Your task to perform on an android device: turn off picture-in-picture Image 0: 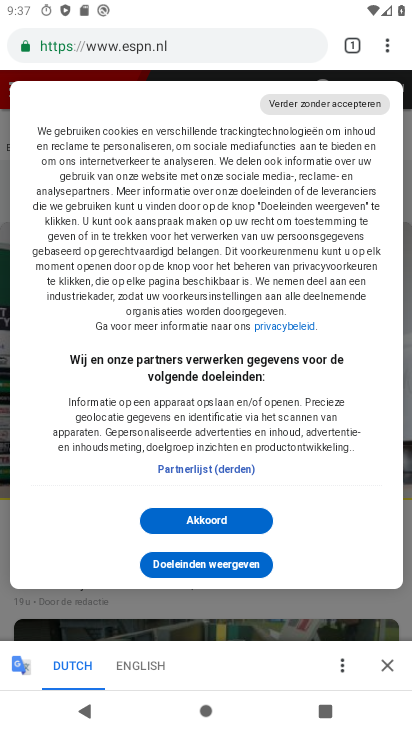
Step 0: press home button
Your task to perform on an android device: turn off picture-in-picture Image 1: 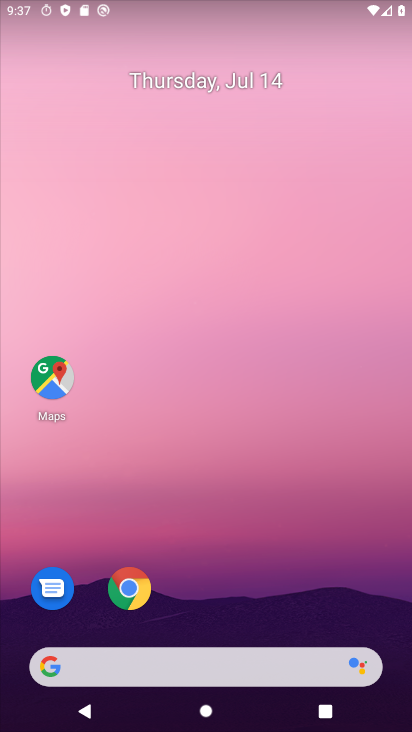
Step 1: click (128, 590)
Your task to perform on an android device: turn off picture-in-picture Image 2: 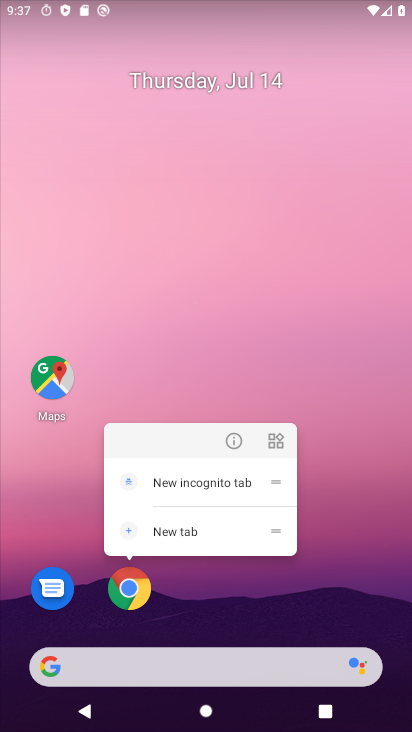
Step 2: click (231, 439)
Your task to perform on an android device: turn off picture-in-picture Image 3: 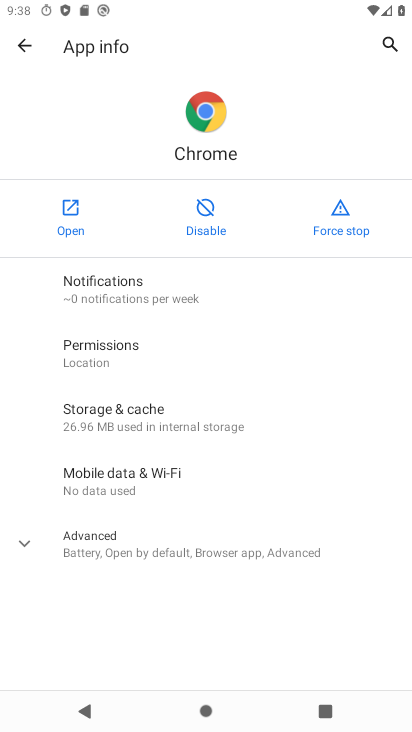
Step 3: click (88, 557)
Your task to perform on an android device: turn off picture-in-picture Image 4: 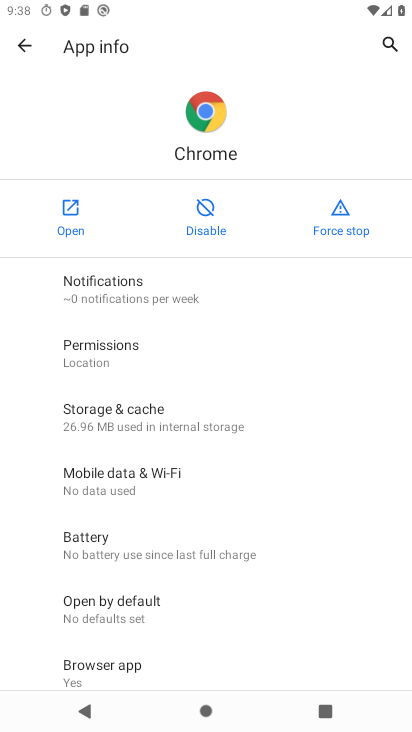
Step 4: drag from (111, 675) to (97, 406)
Your task to perform on an android device: turn off picture-in-picture Image 5: 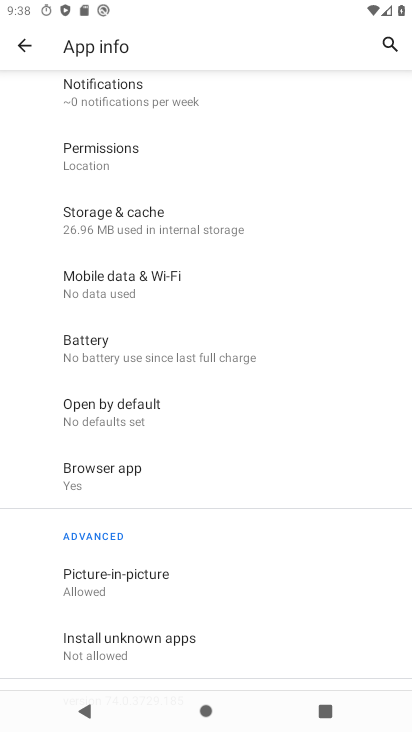
Step 5: click (76, 590)
Your task to perform on an android device: turn off picture-in-picture Image 6: 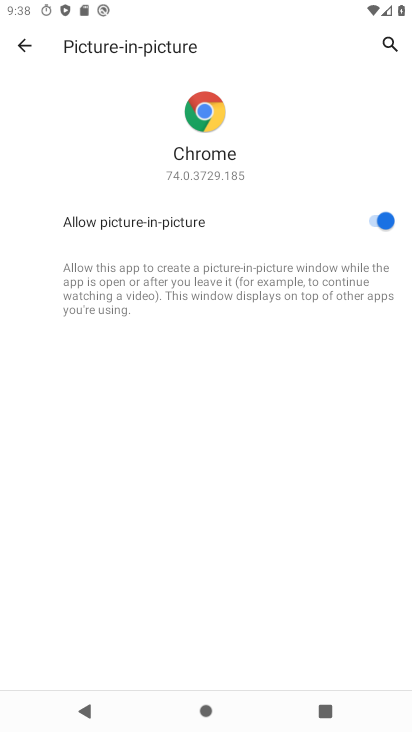
Step 6: click (376, 218)
Your task to perform on an android device: turn off picture-in-picture Image 7: 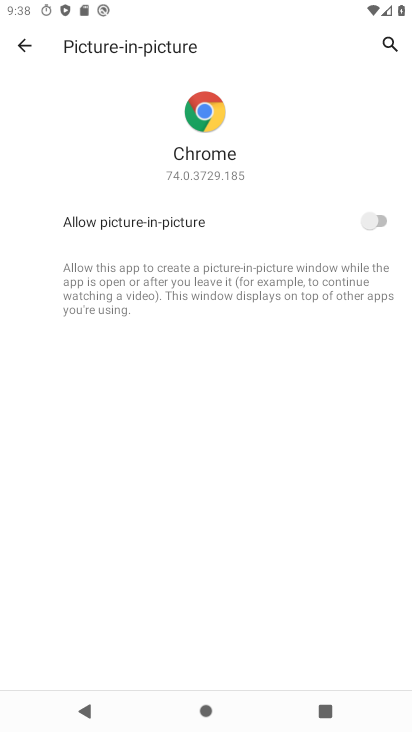
Step 7: task complete